Your task to perform on an android device: Search for sushi restaurants on Maps Image 0: 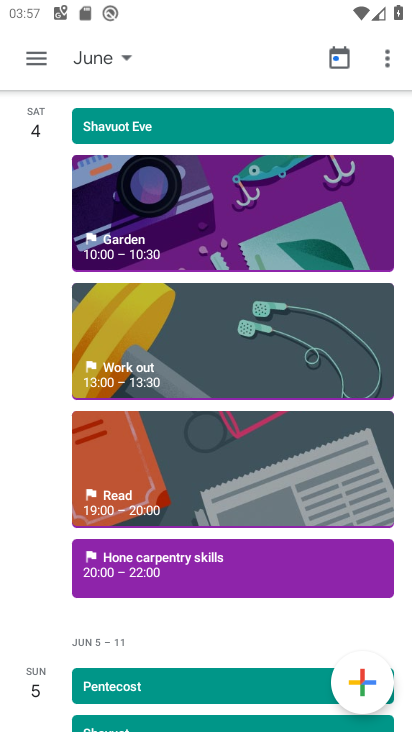
Step 0: press home button
Your task to perform on an android device: Search for sushi restaurants on Maps Image 1: 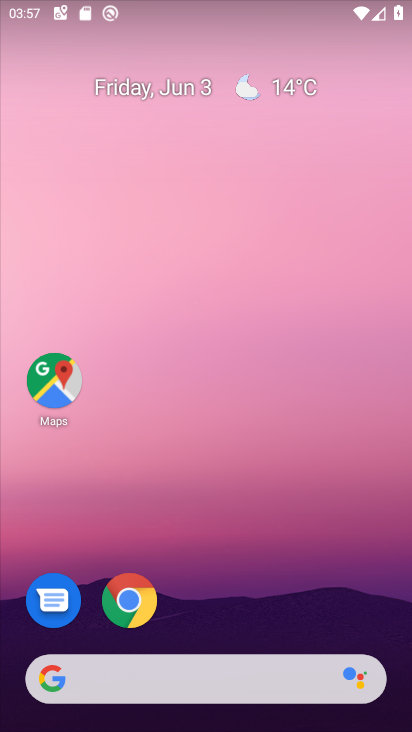
Step 1: click (129, 598)
Your task to perform on an android device: Search for sushi restaurants on Maps Image 2: 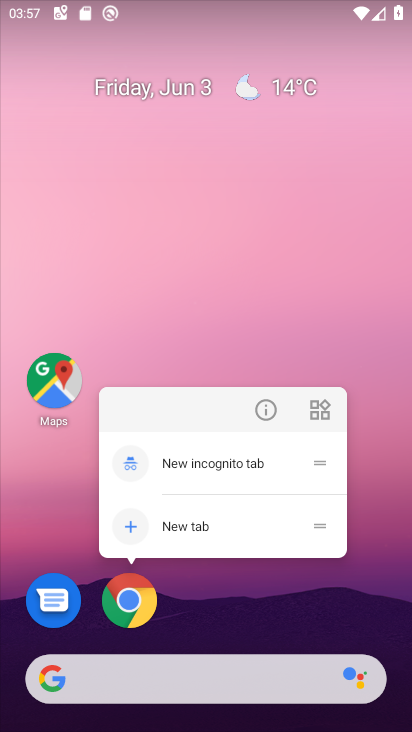
Step 2: click (254, 615)
Your task to perform on an android device: Search for sushi restaurants on Maps Image 3: 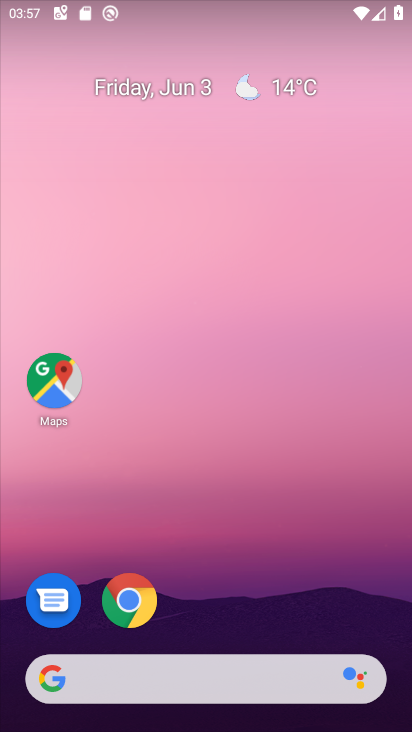
Step 3: click (50, 380)
Your task to perform on an android device: Search for sushi restaurants on Maps Image 4: 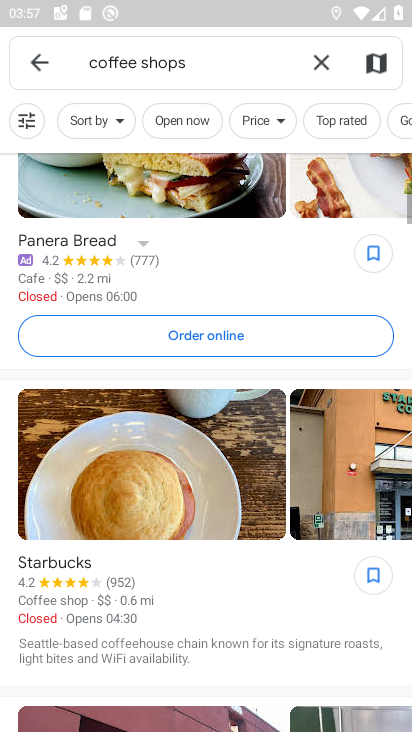
Step 4: click (274, 52)
Your task to perform on an android device: Search for sushi restaurants on Maps Image 5: 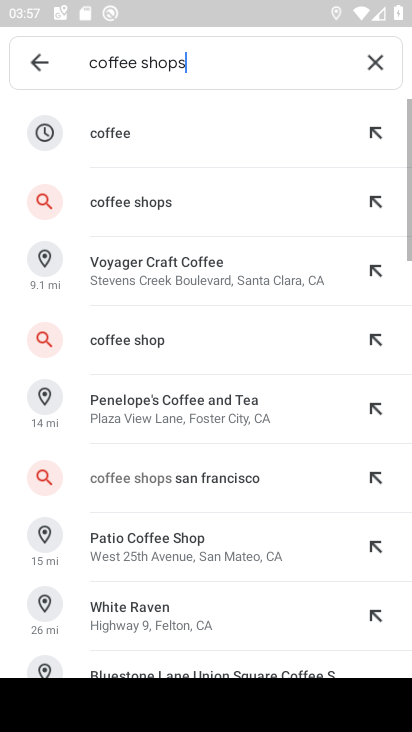
Step 5: click (374, 53)
Your task to perform on an android device: Search for sushi restaurants on Maps Image 6: 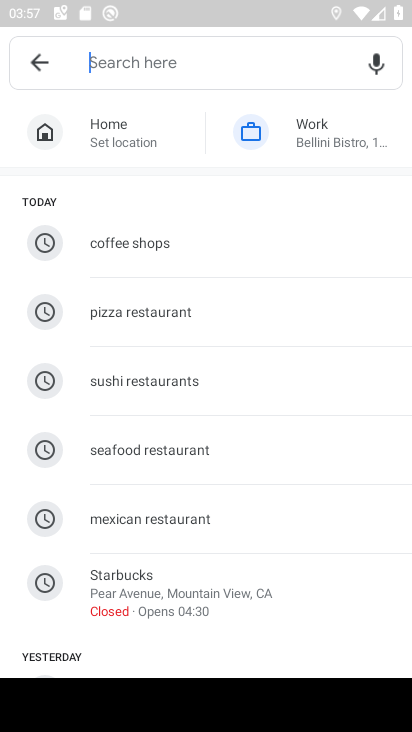
Step 6: click (163, 384)
Your task to perform on an android device: Search for sushi restaurants on Maps Image 7: 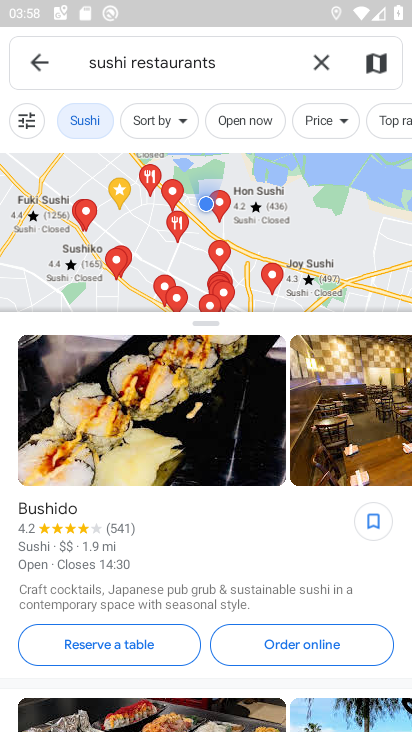
Step 7: task complete